Your task to perform on an android device: toggle priority inbox in the gmail app Image 0: 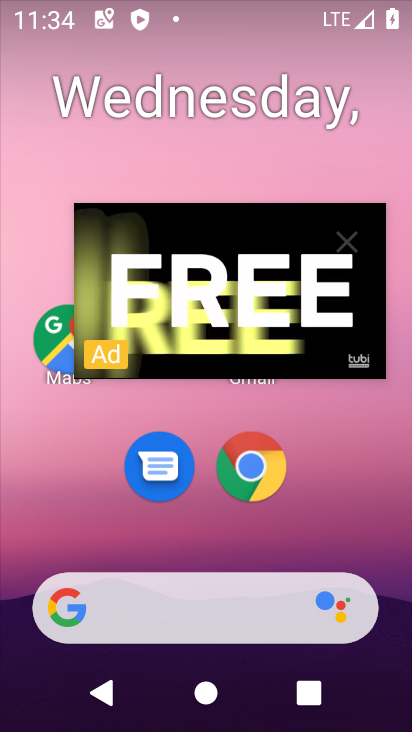
Step 0: click (345, 233)
Your task to perform on an android device: toggle priority inbox in the gmail app Image 1: 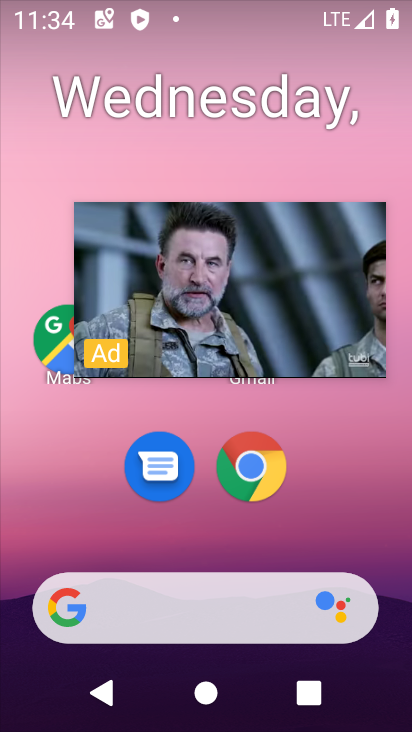
Step 1: click (344, 243)
Your task to perform on an android device: toggle priority inbox in the gmail app Image 2: 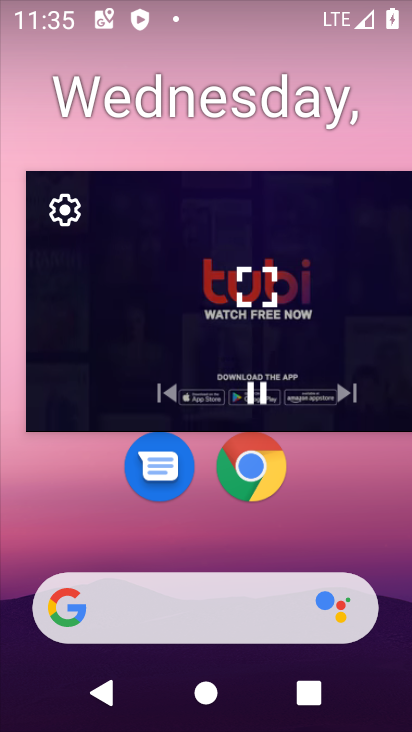
Step 2: click (331, 419)
Your task to perform on an android device: toggle priority inbox in the gmail app Image 3: 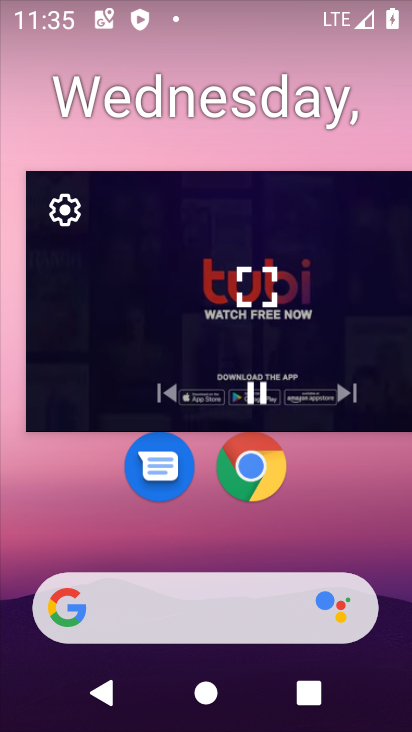
Step 3: click (170, 292)
Your task to perform on an android device: toggle priority inbox in the gmail app Image 4: 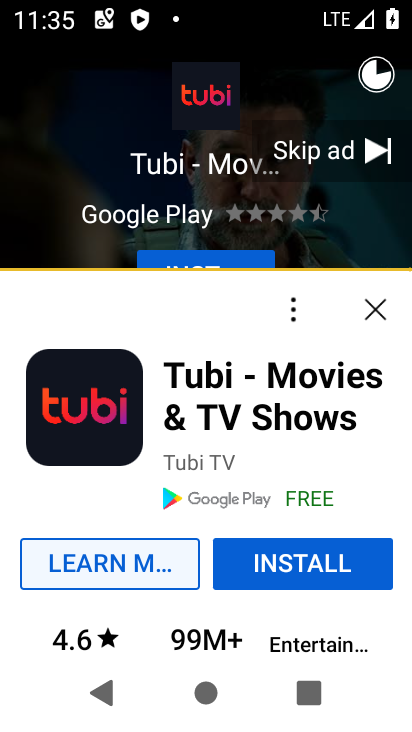
Step 4: drag from (231, 450) to (292, 265)
Your task to perform on an android device: toggle priority inbox in the gmail app Image 5: 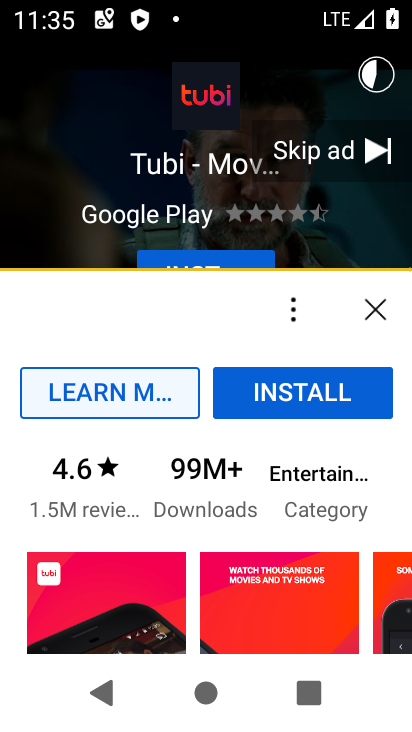
Step 5: press home button
Your task to perform on an android device: toggle priority inbox in the gmail app Image 6: 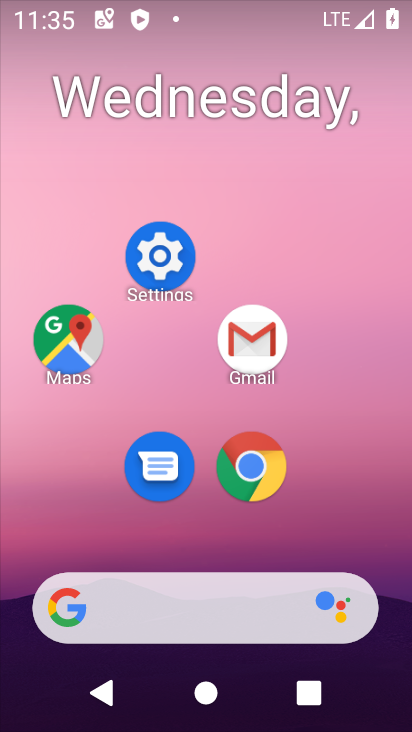
Step 6: click (256, 326)
Your task to perform on an android device: toggle priority inbox in the gmail app Image 7: 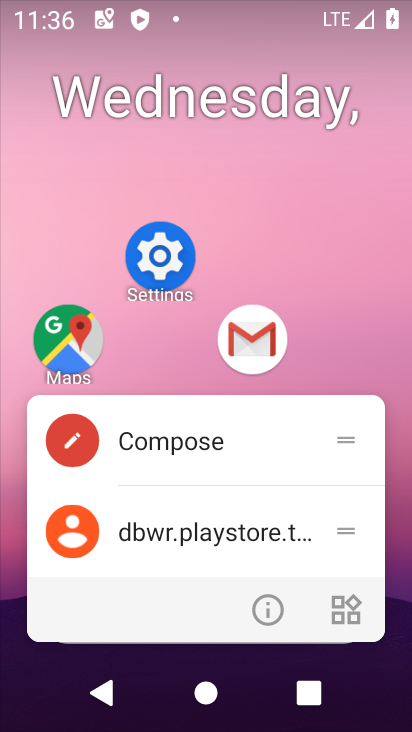
Step 7: click (264, 601)
Your task to perform on an android device: toggle priority inbox in the gmail app Image 8: 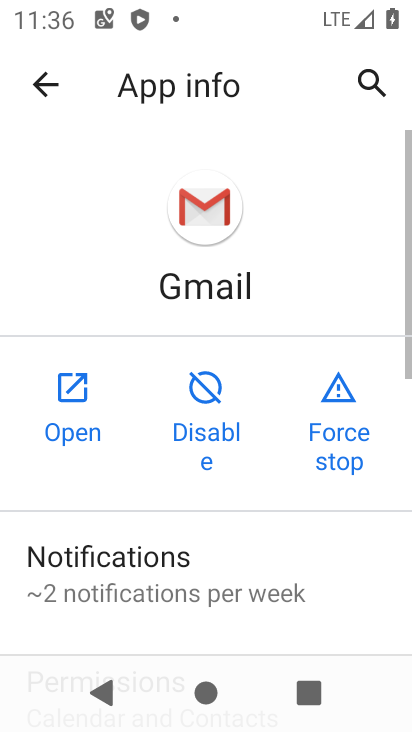
Step 8: click (55, 393)
Your task to perform on an android device: toggle priority inbox in the gmail app Image 9: 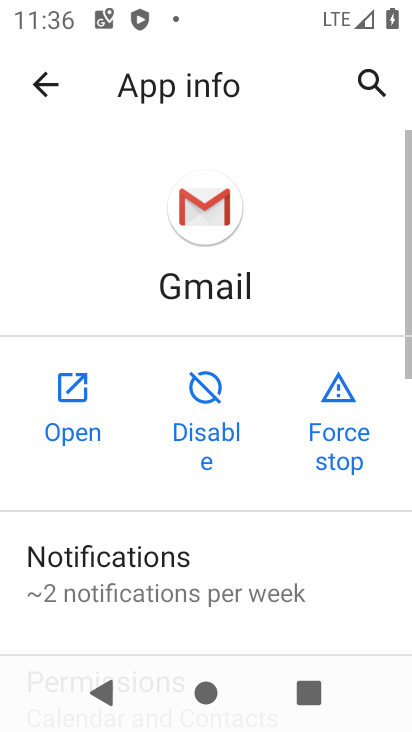
Step 9: click (55, 393)
Your task to perform on an android device: toggle priority inbox in the gmail app Image 10: 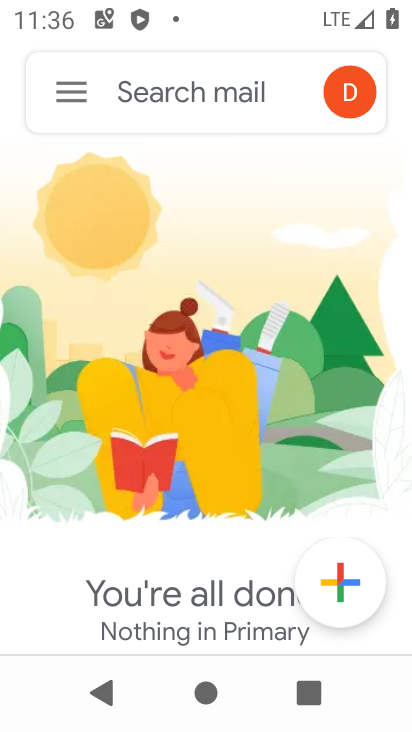
Step 10: click (91, 77)
Your task to perform on an android device: toggle priority inbox in the gmail app Image 11: 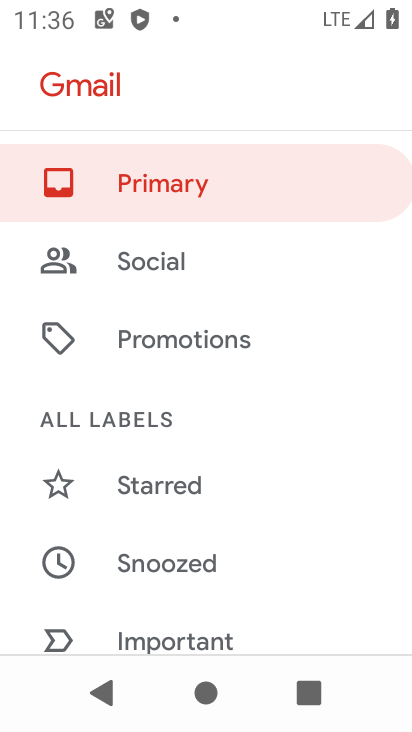
Step 11: drag from (214, 524) to (306, 57)
Your task to perform on an android device: toggle priority inbox in the gmail app Image 12: 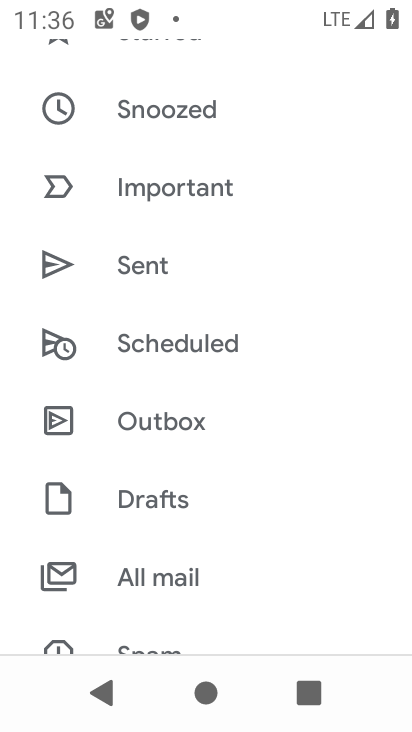
Step 12: drag from (196, 595) to (329, 62)
Your task to perform on an android device: toggle priority inbox in the gmail app Image 13: 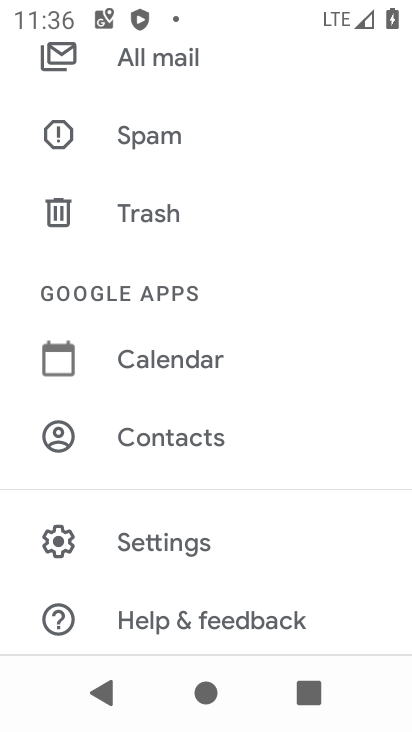
Step 13: click (151, 564)
Your task to perform on an android device: toggle priority inbox in the gmail app Image 14: 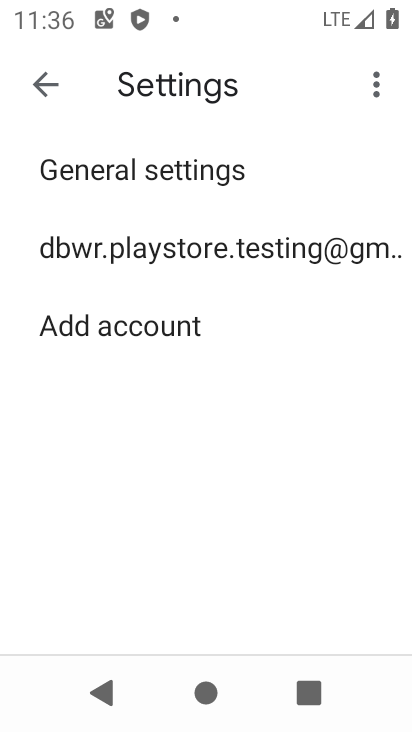
Step 14: click (186, 262)
Your task to perform on an android device: toggle priority inbox in the gmail app Image 15: 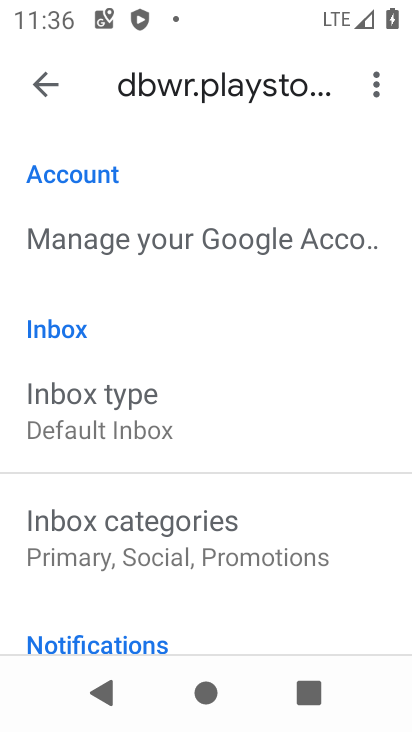
Step 15: click (124, 447)
Your task to perform on an android device: toggle priority inbox in the gmail app Image 16: 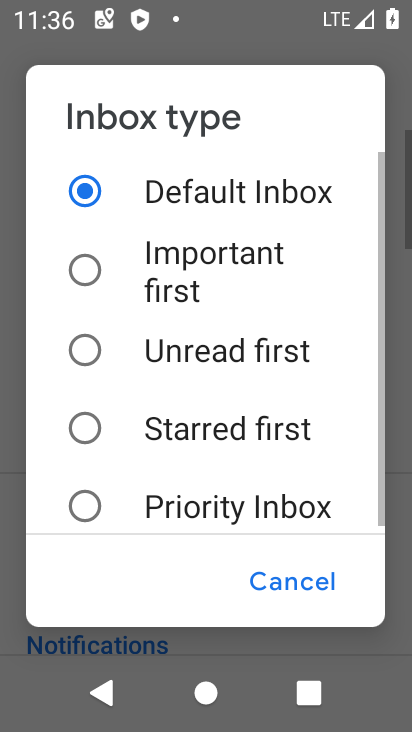
Step 16: click (195, 512)
Your task to perform on an android device: toggle priority inbox in the gmail app Image 17: 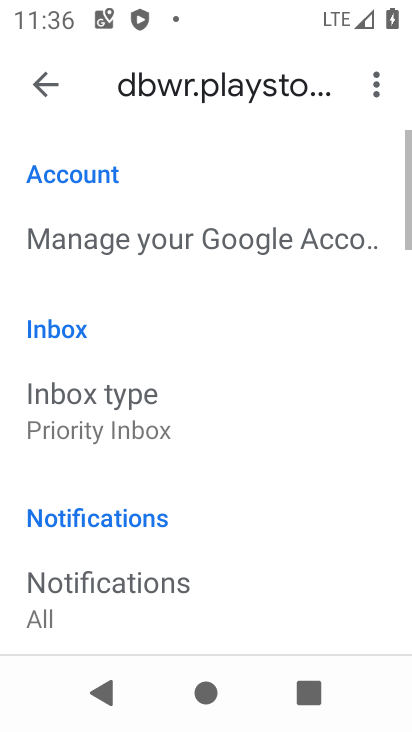
Step 17: task complete